Your task to perform on an android device: remove spam from my inbox in the gmail app Image 0: 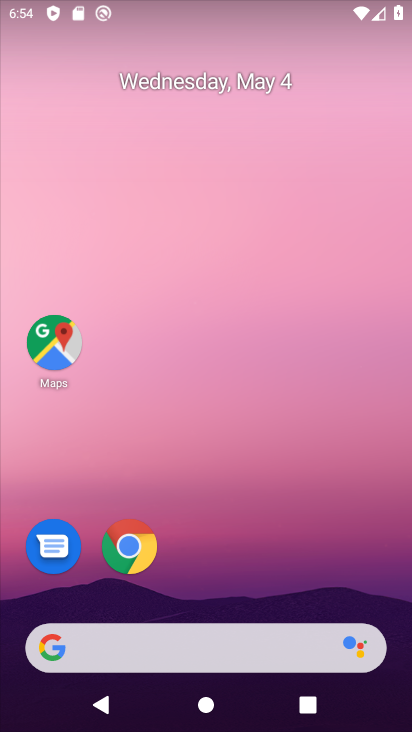
Step 0: drag from (276, 574) to (297, 52)
Your task to perform on an android device: remove spam from my inbox in the gmail app Image 1: 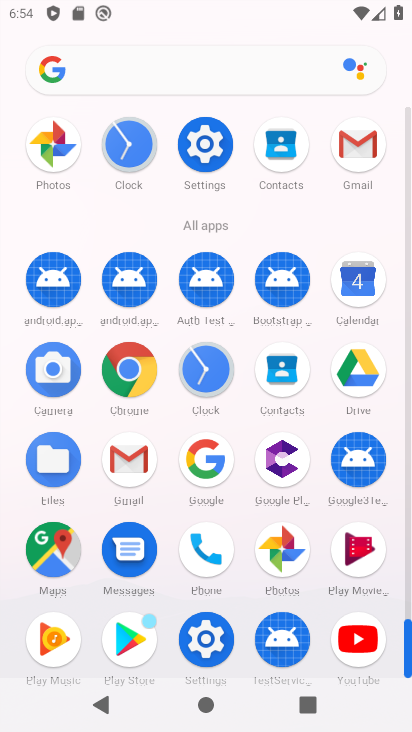
Step 1: click (366, 143)
Your task to perform on an android device: remove spam from my inbox in the gmail app Image 2: 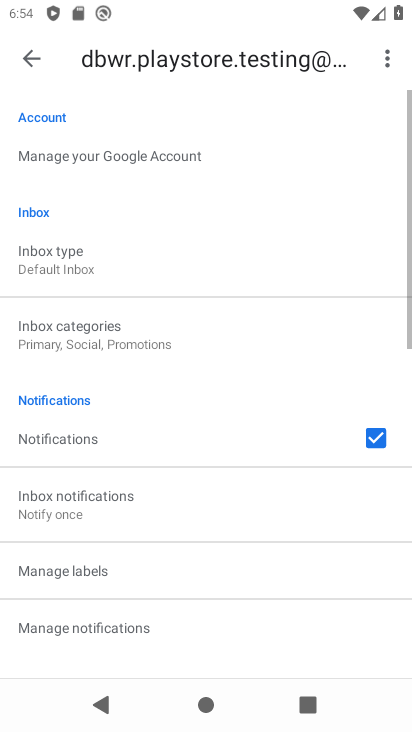
Step 2: click (366, 143)
Your task to perform on an android device: remove spam from my inbox in the gmail app Image 3: 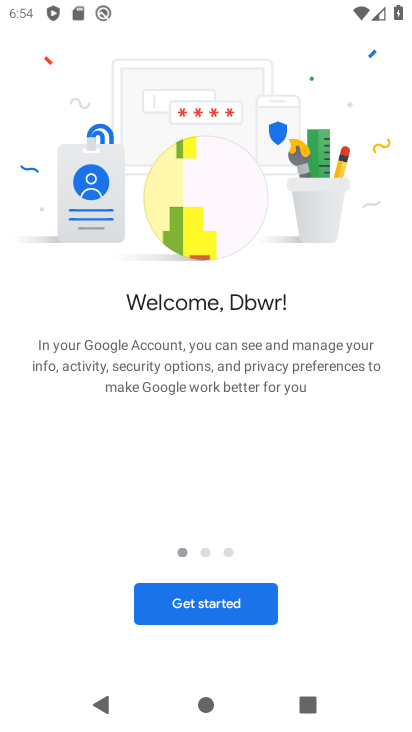
Step 3: click (234, 616)
Your task to perform on an android device: remove spam from my inbox in the gmail app Image 4: 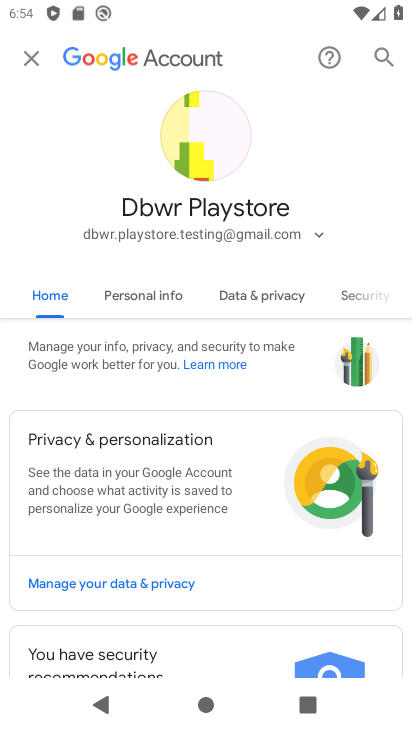
Step 4: click (234, 616)
Your task to perform on an android device: remove spam from my inbox in the gmail app Image 5: 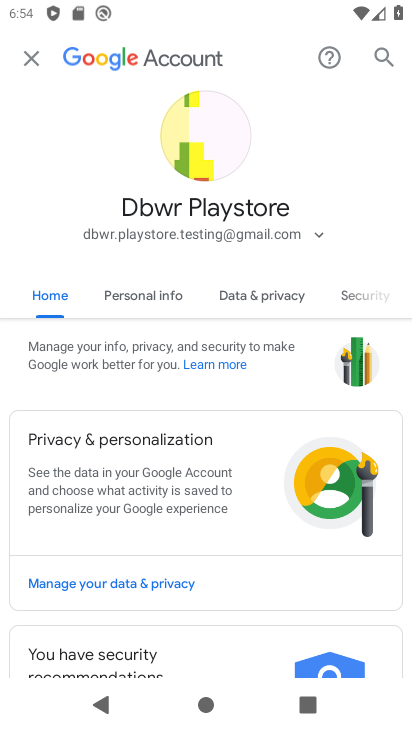
Step 5: press home button
Your task to perform on an android device: remove spam from my inbox in the gmail app Image 6: 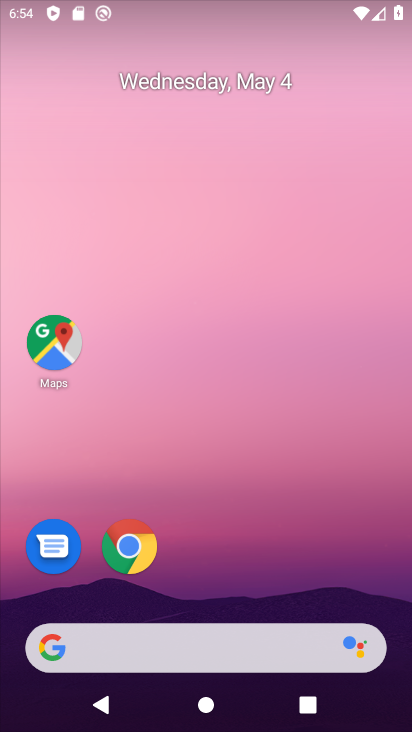
Step 6: drag from (316, 543) to (307, 91)
Your task to perform on an android device: remove spam from my inbox in the gmail app Image 7: 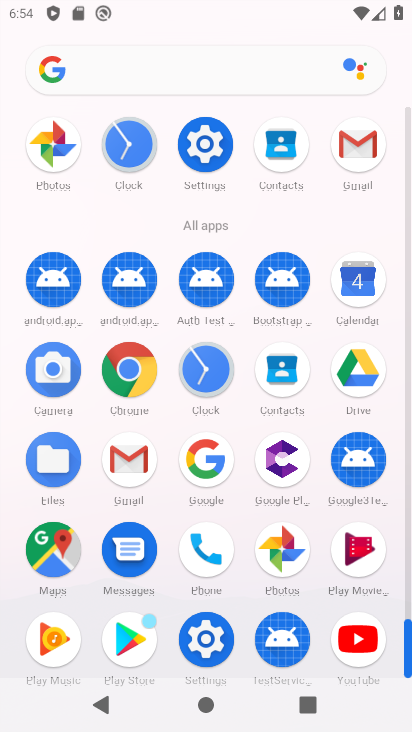
Step 7: click (357, 139)
Your task to perform on an android device: remove spam from my inbox in the gmail app Image 8: 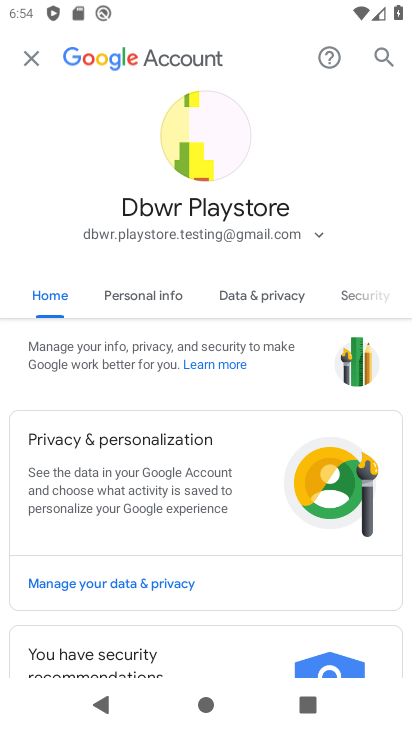
Step 8: click (39, 67)
Your task to perform on an android device: remove spam from my inbox in the gmail app Image 9: 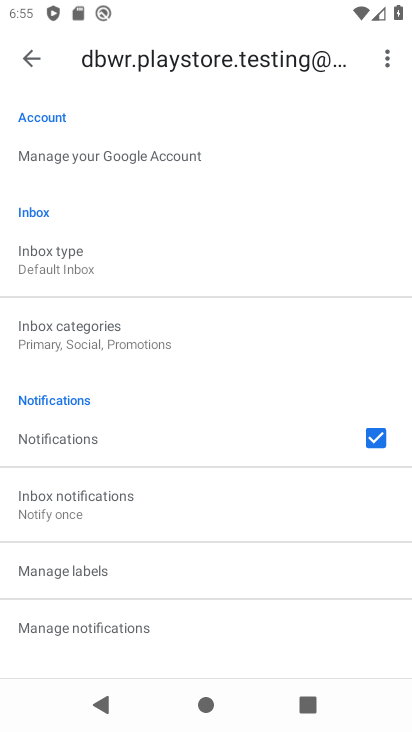
Step 9: click (39, 67)
Your task to perform on an android device: remove spam from my inbox in the gmail app Image 10: 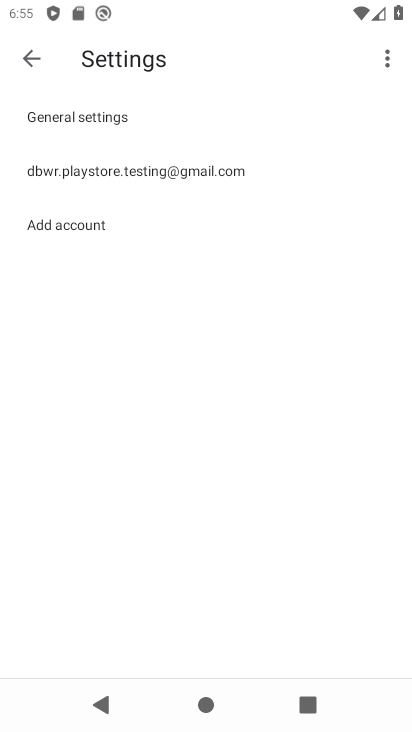
Step 10: click (39, 67)
Your task to perform on an android device: remove spam from my inbox in the gmail app Image 11: 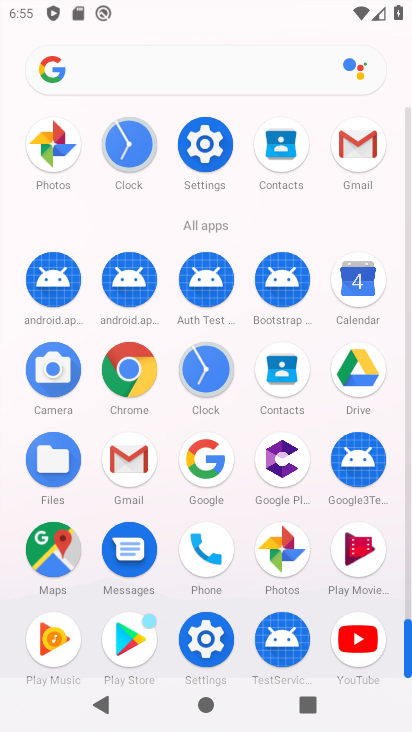
Step 11: click (355, 148)
Your task to perform on an android device: remove spam from my inbox in the gmail app Image 12: 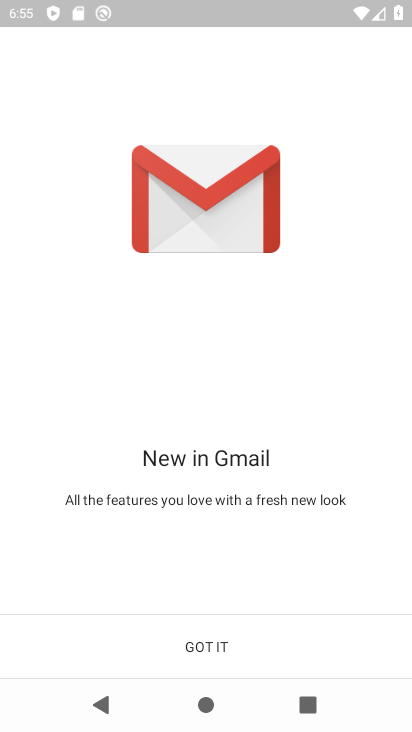
Step 12: click (227, 650)
Your task to perform on an android device: remove spam from my inbox in the gmail app Image 13: 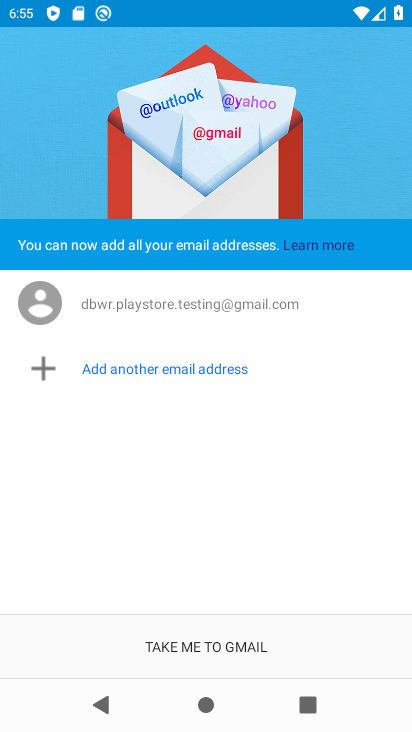
Step 13: click (226, 650)
Your task to perform on an android device: remove spam from my inbox in the gmail app Image 14: 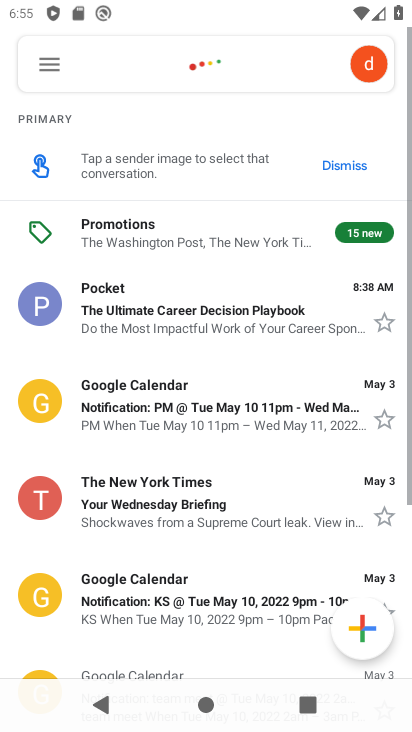
Step 14: click (48, 62)
Your task to perform on an android device: remove spam from my inbox in the gmail app Image 15: 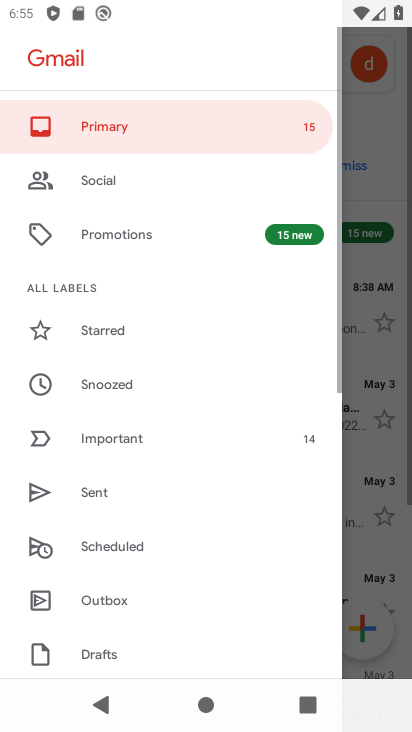
Step 15: drag from (201, 518) to (176, 241)
Your task to perform on an android device: remove spam from my inbox in the gmail app Image 16: 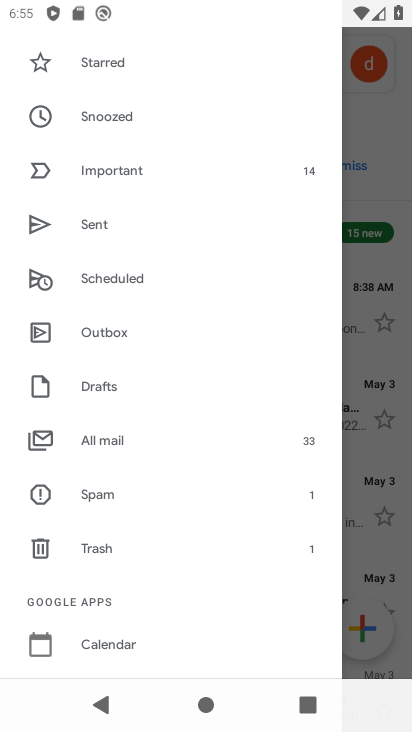
Step 16: click (71, 493)
Your task to perform on an android device: remove spam from my inbox in the gmail app Image 17: 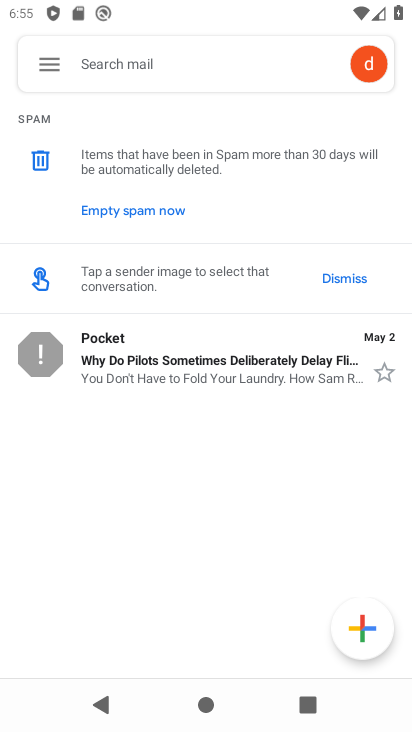
Step 17: click (101, 207)
Your task to perform on an android device: remove spam from my inbox in the gmail app Image 18: 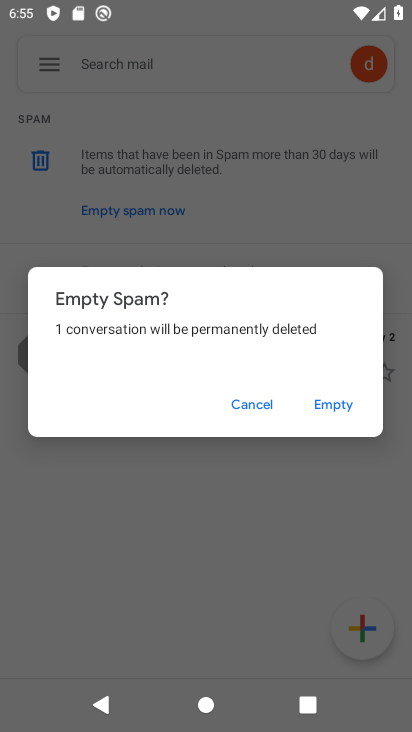
Step 18: click (339, 406)
Your task to perform on an android device: remove spam from my inbox in the gmail app Image 19: 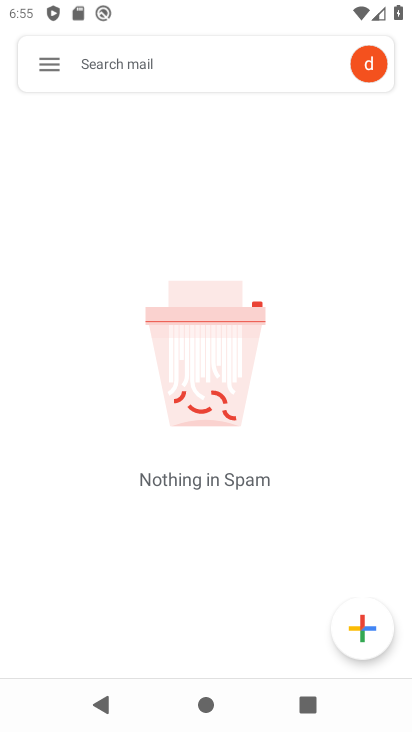
Step 19: task complete